Your task to perform on an android device: Is it going to rain tomorrow? Image 0: 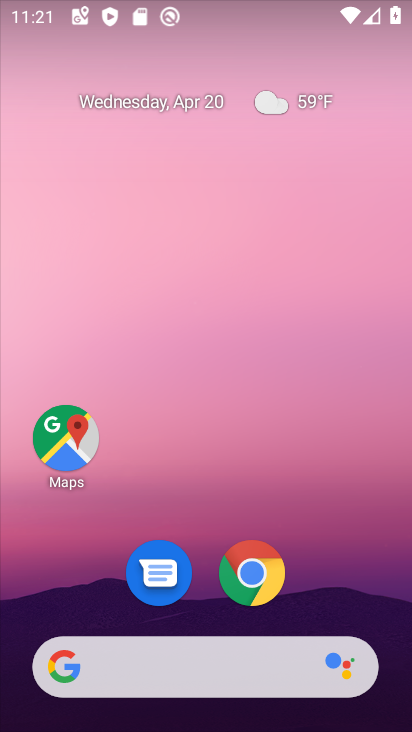
Step 0: click (294, 100)
Your task to perform on an android device: Is it going to rain tomorrow? Image 1: 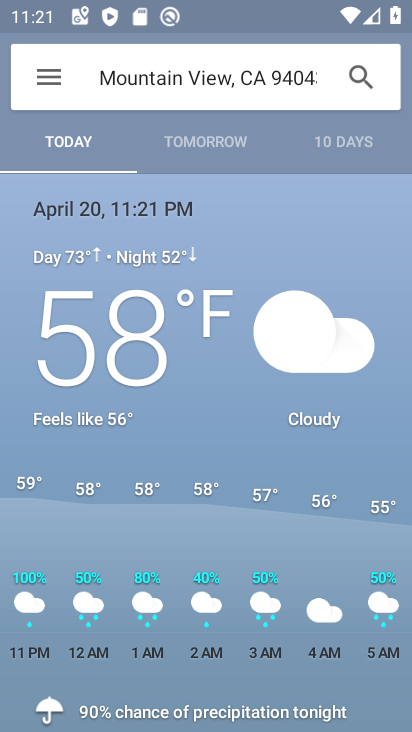
Step 1: click (218, 139)
Your task to perform on an android device: Is it going to rain tomorrow? Image 2: 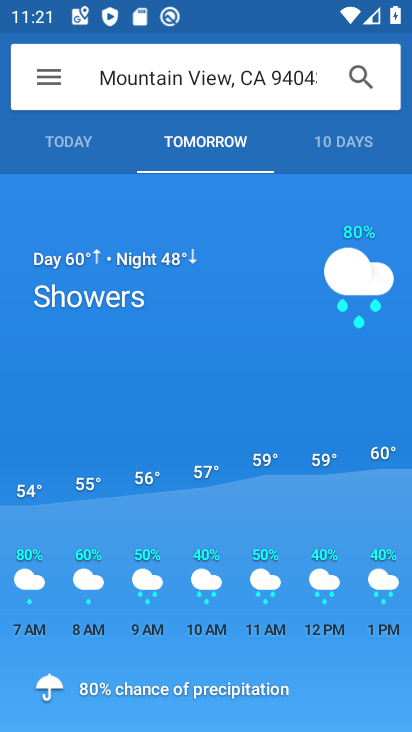
Step 2: task complete